Your task to perform on an android device: Open the contacts app Image 0: 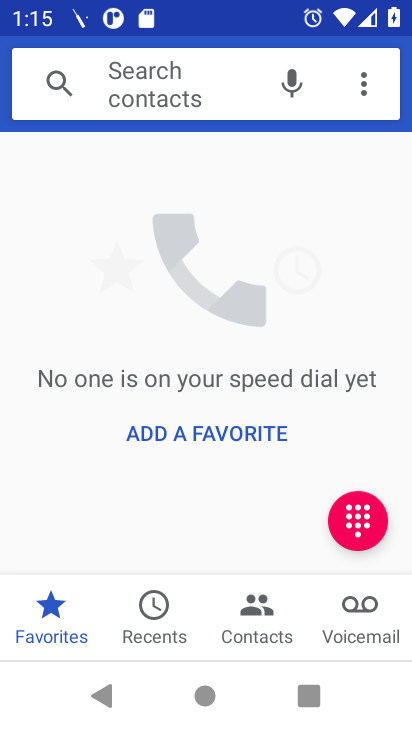
Step 0: press home button
Your task to perform on an android device: Open the contacts app Image 1: 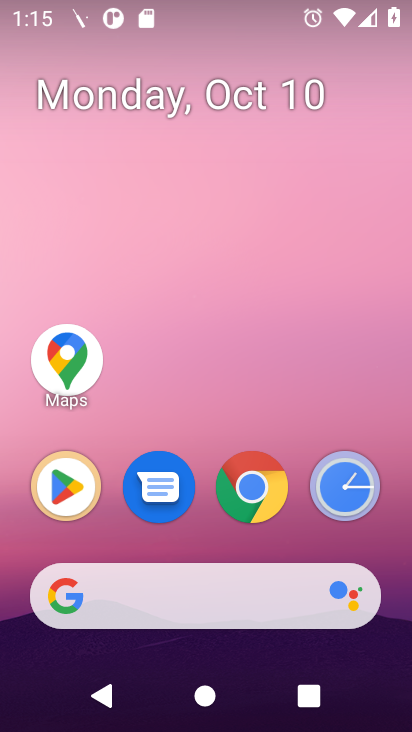
Step 1: drag from (223, 545) to (202, 195)
Your task to perform on an android device: Open the contacts app Image 2: 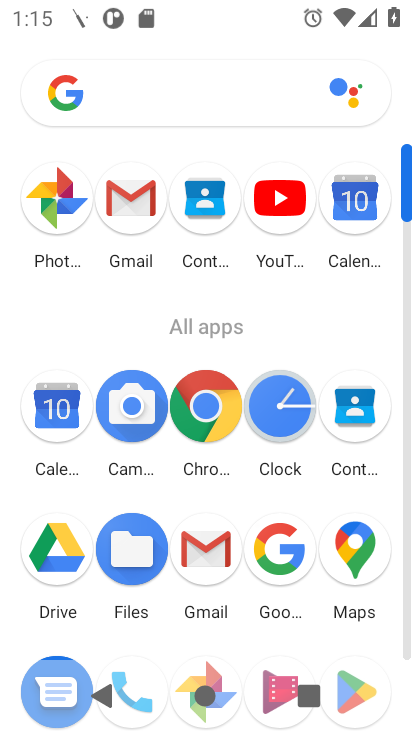
Step 2: click (361, 416)
Your task to perform on an android device: Open the contacts app Image 3: 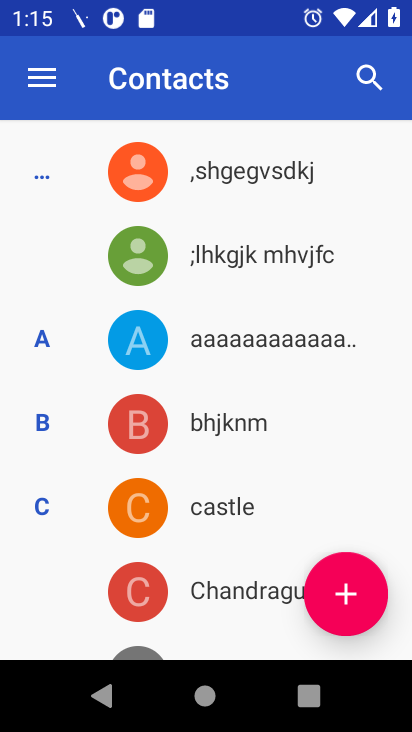
Step 3: drag from (314, 472) to (306, 146)
Your task to perform on an android device: Open the contacts app Image 4: 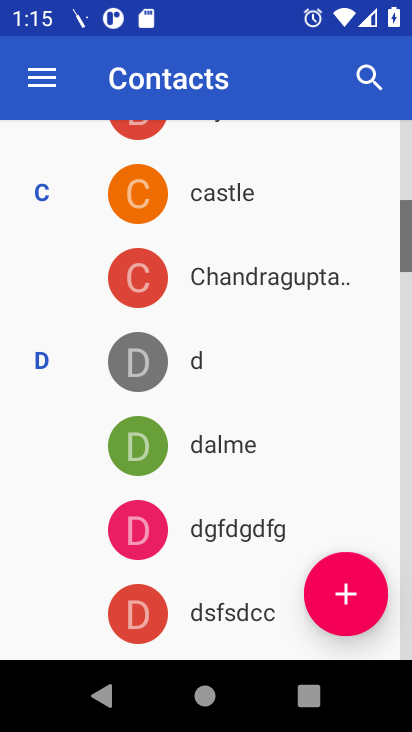
Step 4: drag from (405, 238) to (361, 37)
Your task to perform on an android device: Open the contacts app Image 5: 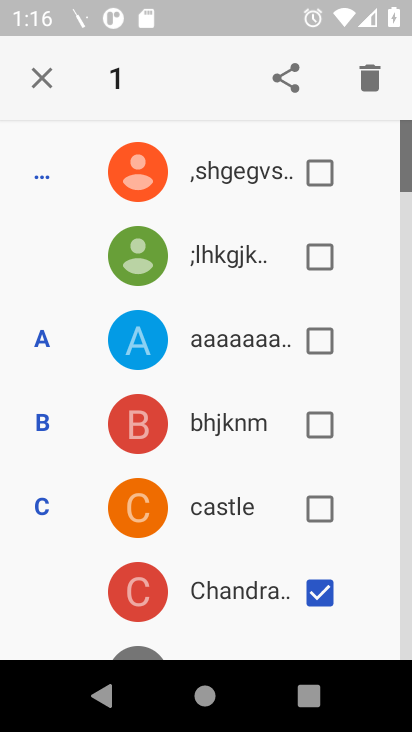
Step 5: click (325, 591)
Your task to perform on an android device: Open the contacts app Image 6: 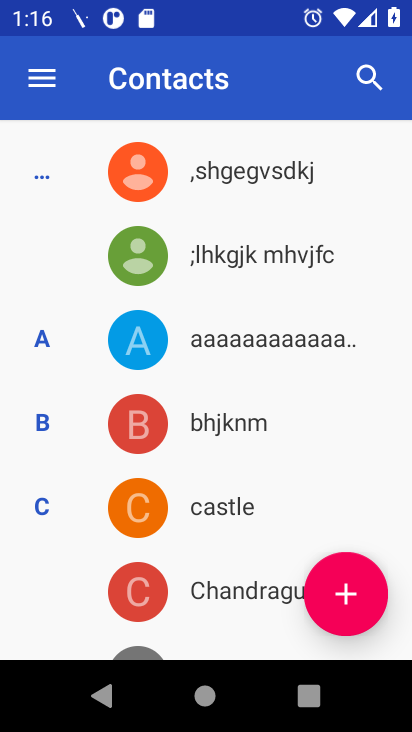
Step 6: task complete